Your task to perform on an android device: When is my next appointment? Image 0: 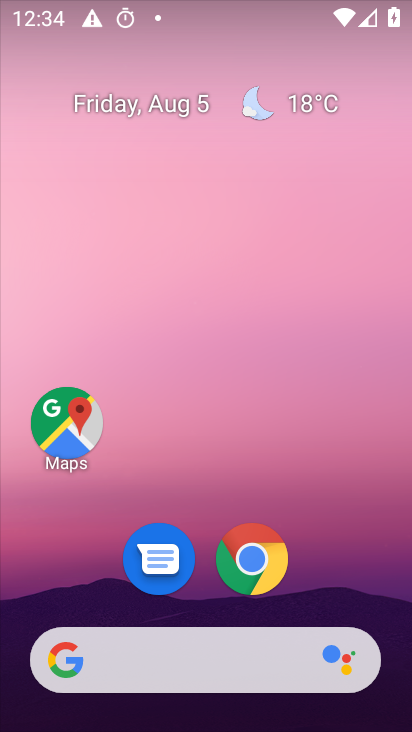
Step 0: drag from (23, 696) to (401, 23)
Your task to perform on an android device: When is my next appointment? Image 1: 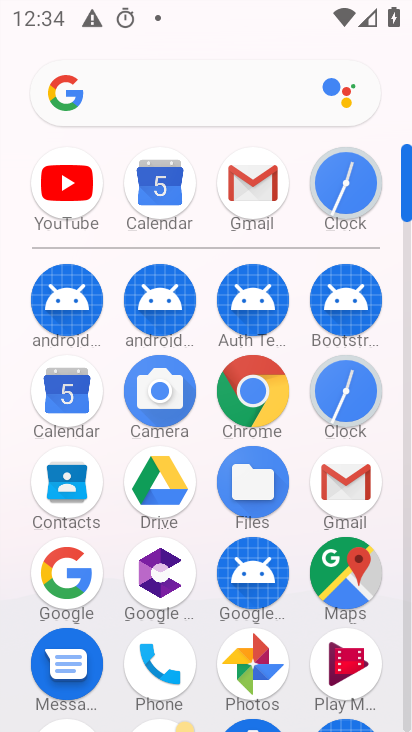
Step 1: click (69, 409)
Your task to perform on an android device: When is my next appointment? Image 2: 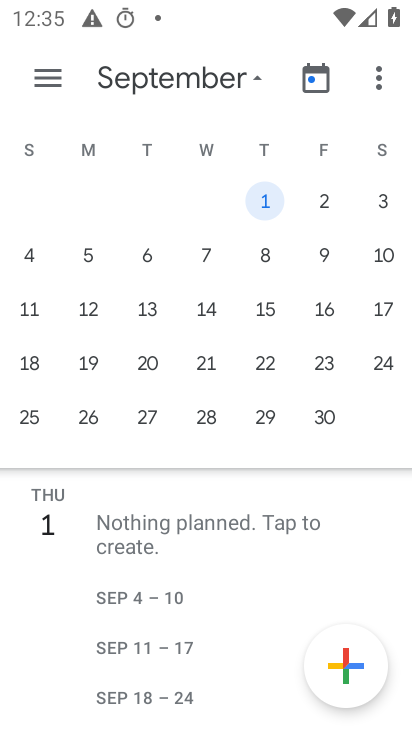
Step 2: task complete